Your task to perform on an android device: turn on location history Image 0: 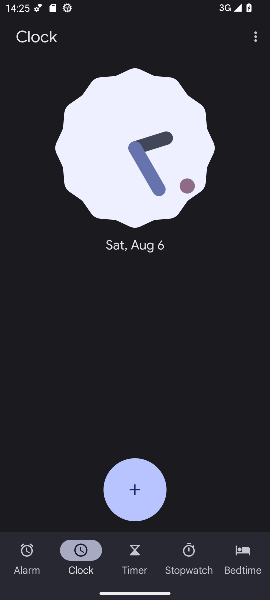
Step 0: press home button
Your task to perform on an android device: turn on location history Image 1: 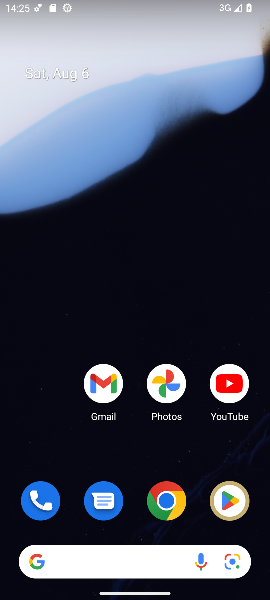
Step 1: drag from (139, 518) to (151, 89)
Your task to perform on an android device: turn on location history Image 2: 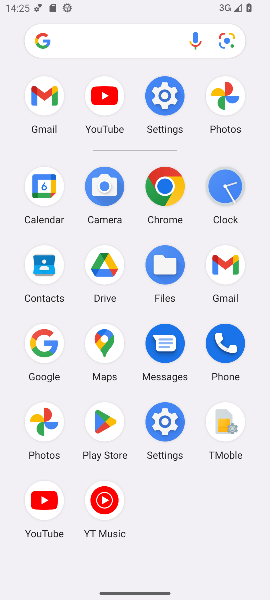
Step 2: click (155, 96)
Your task to perform on an android device: turn on location history Image 3: 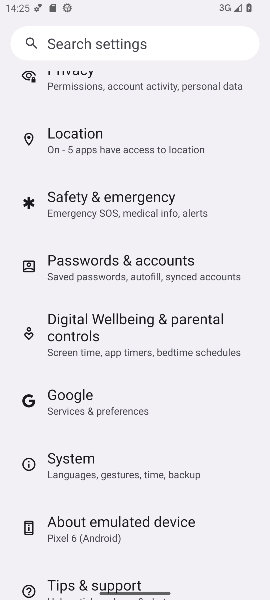
Step 3: click (75, 149)
Your task to perform on an android device: turn on location history Image 4: 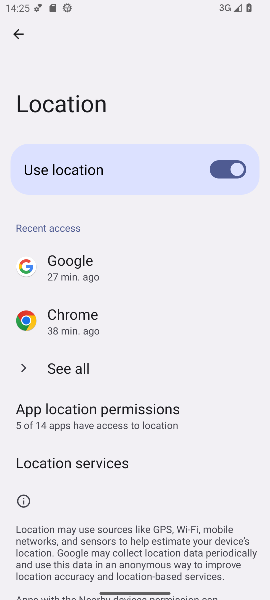
Step 4: click (88, 463)
Your task to perform on an android device: turn on location history Image 5: 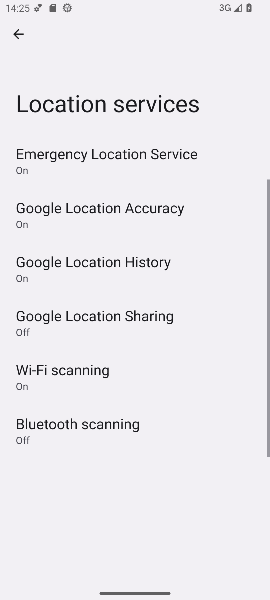
Step 5: drag from (67, 459) to (227, 408)
Your task to perform on an android device: turn on location history Image 6: 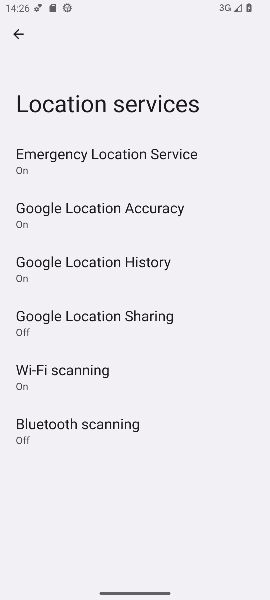
Step 6: click (104, 266)
Your task to perform on an android device: turn on location history Image 7: 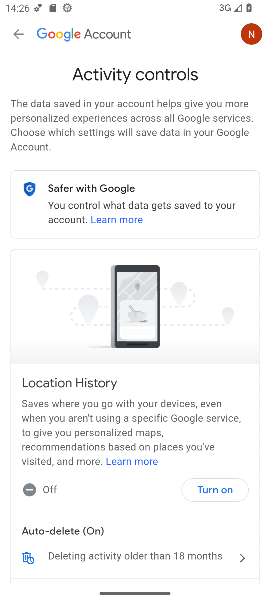
Step 7: click (226, 493)
Your task to perform on an android device: turn on location history Image 8: 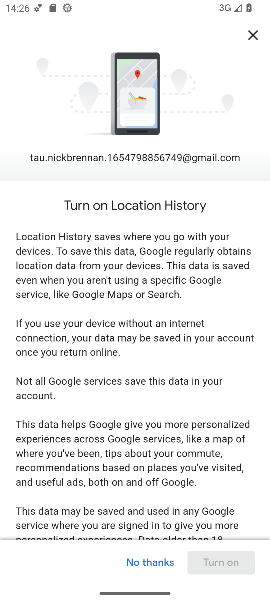
Step 8: drag from (232, 487) to (206, 201)
Your task to perform on an android device: turn on location history Image 9: 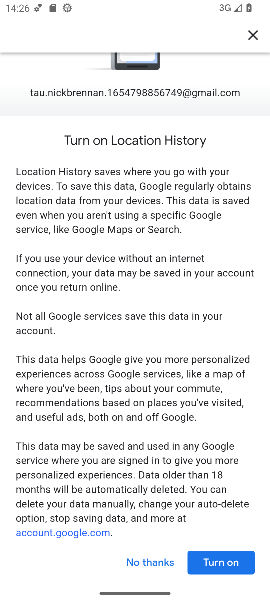
Step 9: click (201, 564)
Your task to perform on an android device: turn on location history Image 10: 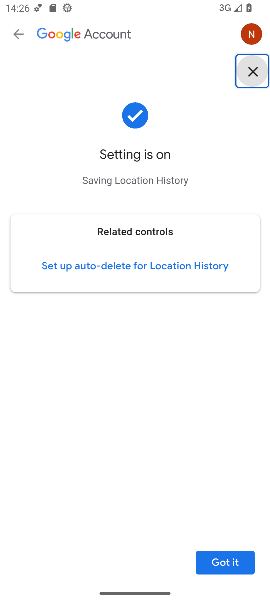
Step 10: click (216, 562)
Your task to perform on an android device: turn on location history Image 11: 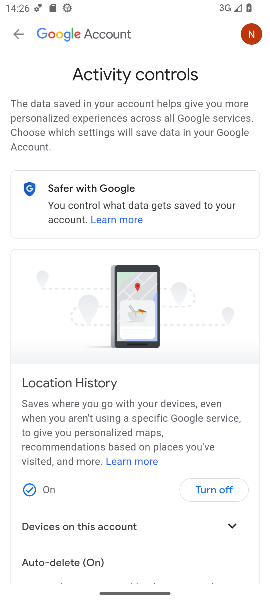
Step 11: task complete